Your task to perform on an android device: delete the emails in spam in the gmail app Image 0: 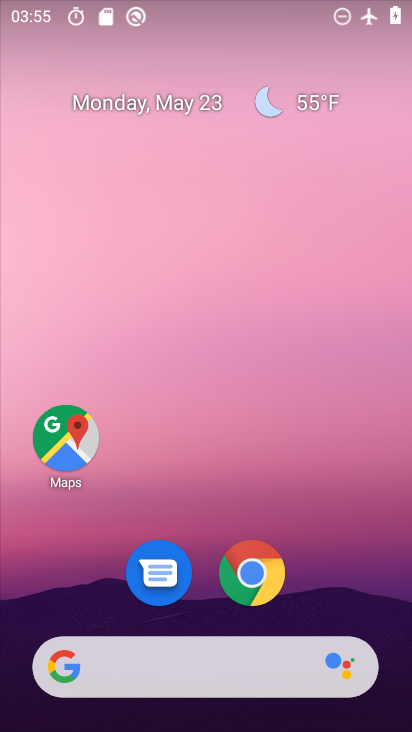
Step 0: drag from (322, 605) to (247, 341)
Your task to perform on an android device: delete the emails in spam in the gmail app Image 1: 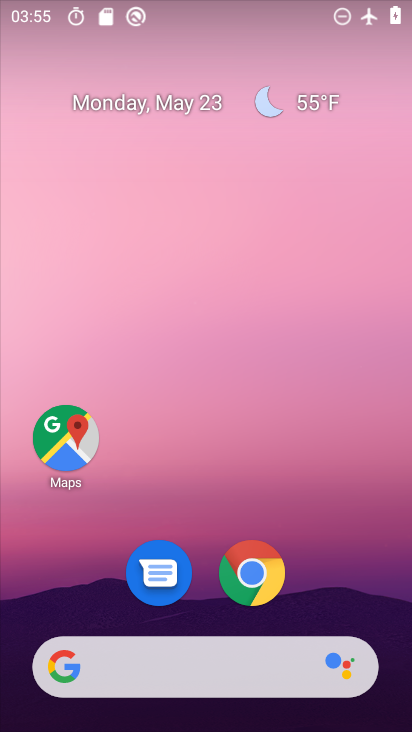
Step 1: drag from (332, 580) to (252, 118)
Your task to perform on an android device: delete the emails in spam in the gmail app Image 2: 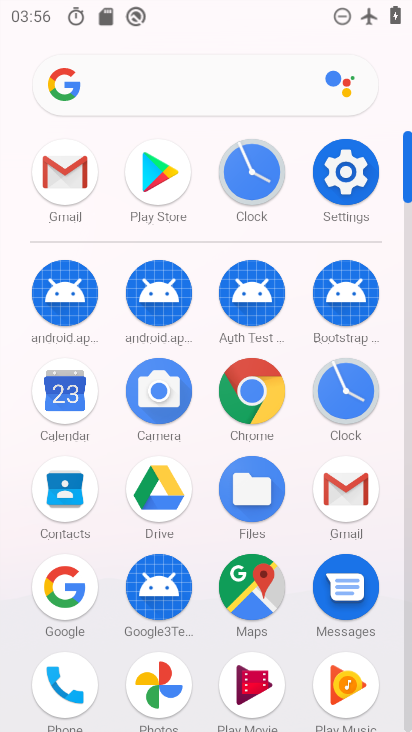
Step 2: click (67, 166)
Your task to perform on an android device: delete the emails in spam in the gmail app Image 3: 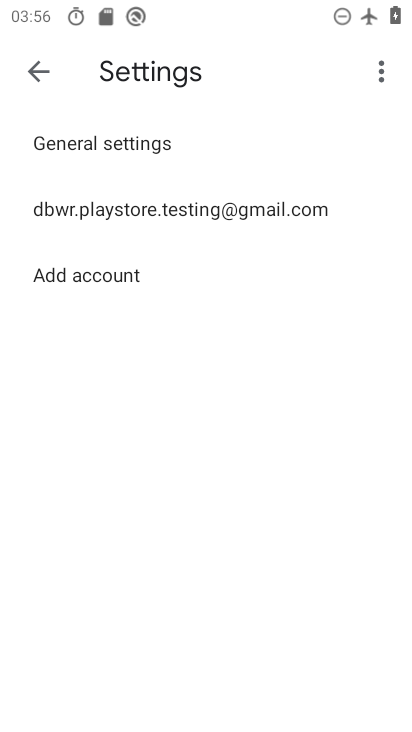
Step 3: click (36, 66)
Your task to perform on an android device: delete the emails in spam in the gmail app Image 4: 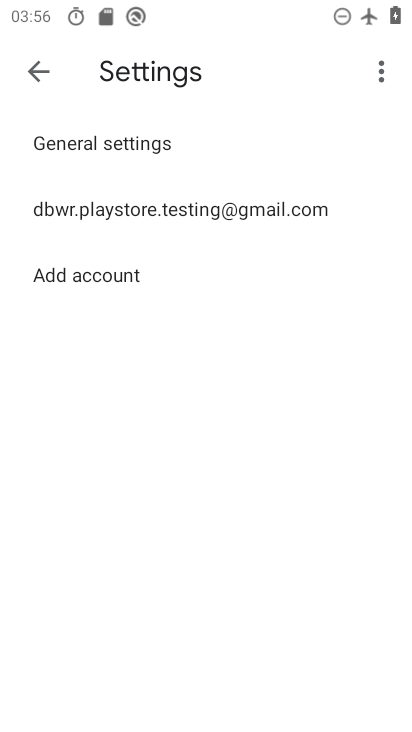
Step 4: click (35, 69)
Your task to perform on an android device: delete the emails in spam in the gmail app Image 5: 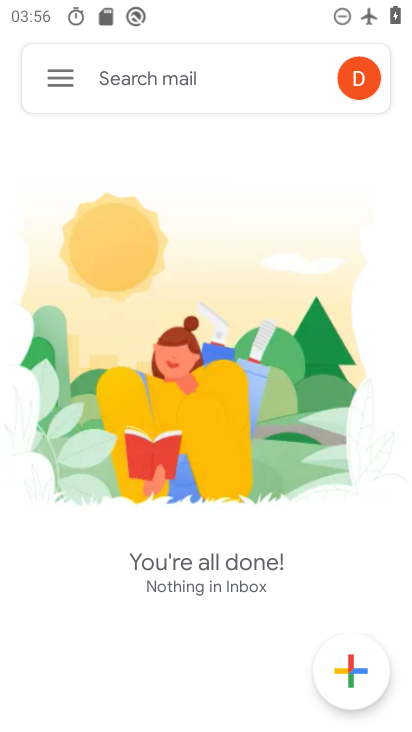
Step 5: click (59, 82)
Your task to perform on an android device: delete the emails in spam in the gmail app Image 6: 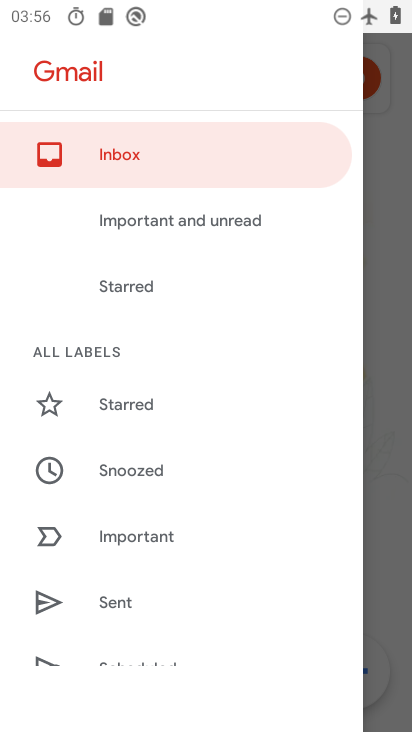
Step 6: drag from (187, 563) to (171, 303)
Your task to perform on an android device: delete the emails in spam in the gmail app Image 7: 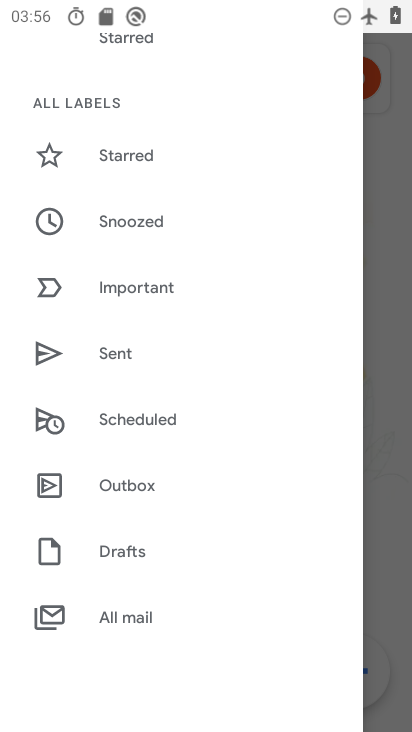
Step 7: drag from (162, 593) to (164, 272)
Your task to perform on an android device: delete the emails in spam in the gmail app Image 8: 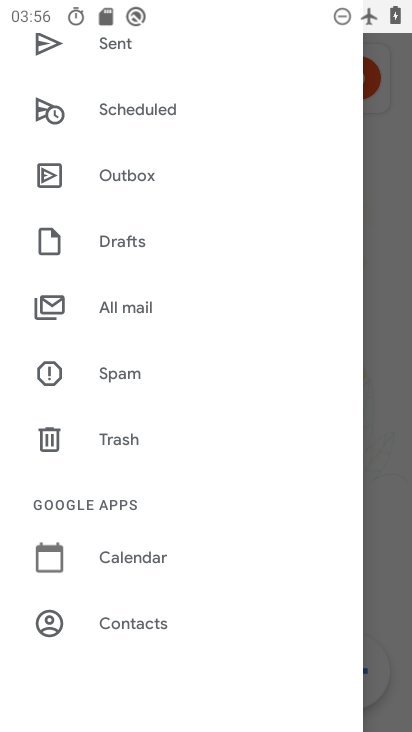
Step 8: click (126, 377)
Your task to perform on an android device: delete the emails in spam in the gmail app Image 9: 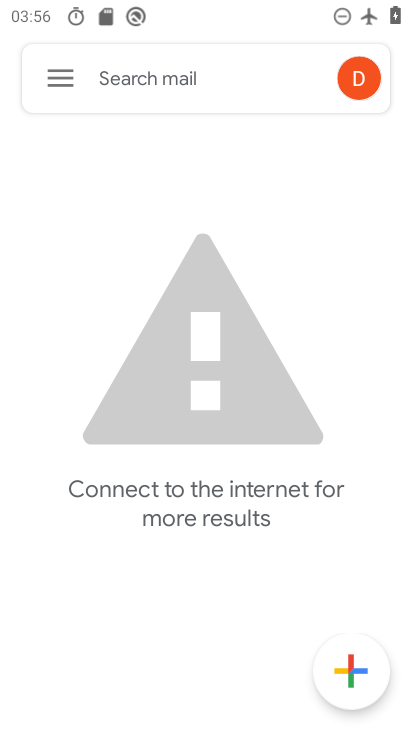
Step 9: drag from (331, 7) to (273, 399)
Your task to perform on an android device: delete the emails in spam in the gmail app Image 10: 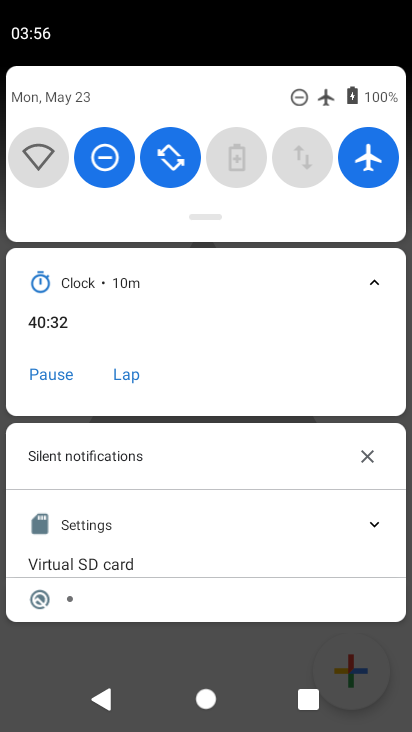
Step 10: click (370, 155)
Your task to perform on an android device: delete the emails in spam in the gmail app Image 11: 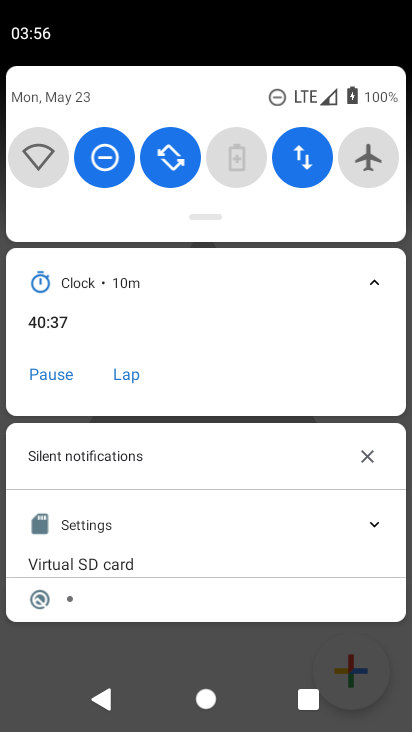
Step 11: task complete